Your task to perform on an android device: toggle data saver in the chrome app Image 0: 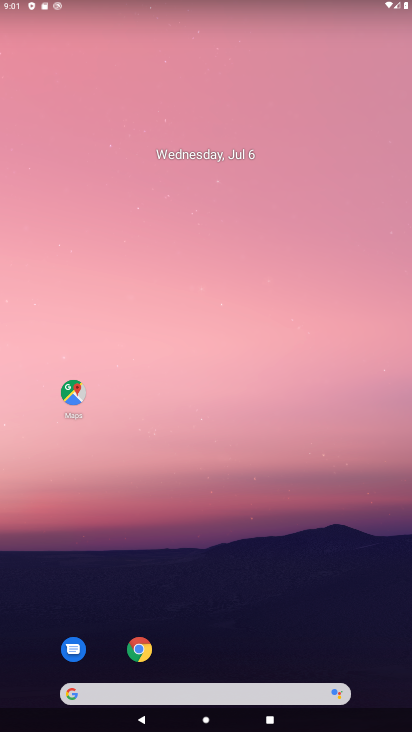
Step 0: drag from (222, 411) to (285, 185)
Your task to perform on an android device: toggle data saver in the chrome app Image 1: 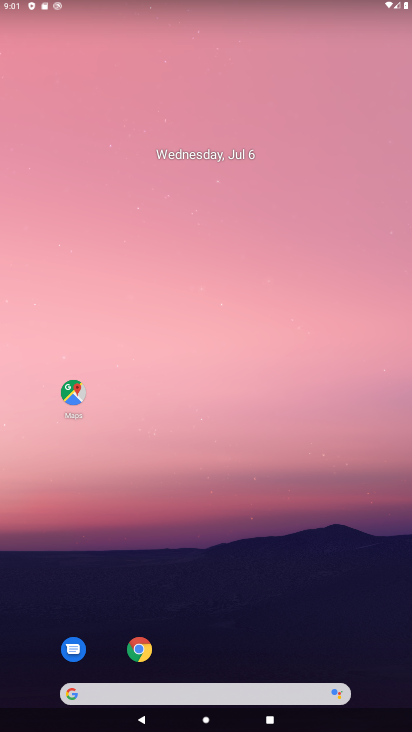
Step 1: drag from (183, 666) to (233, 144)
Your task to perform on an android device: toggle data saver in the chrome app Image 2: 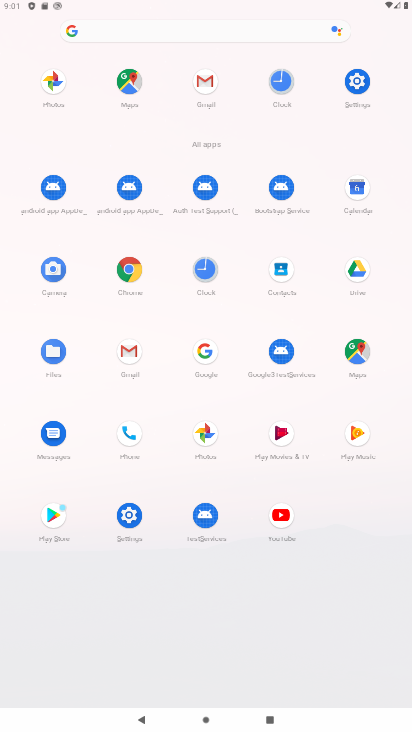
Step 2: click (131, 266)
Your task to perform on an android device: toggle data saver in the chrome app Image 3: 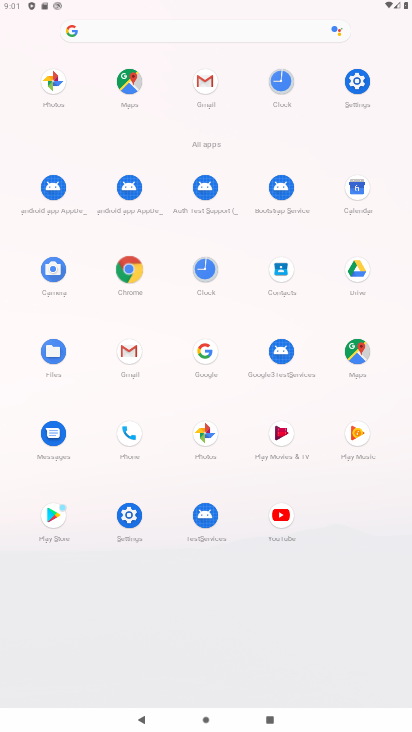
Step 3: click (131, 264)
Your task to perform on an android device: toggle data saver in the chrome app Image 4: 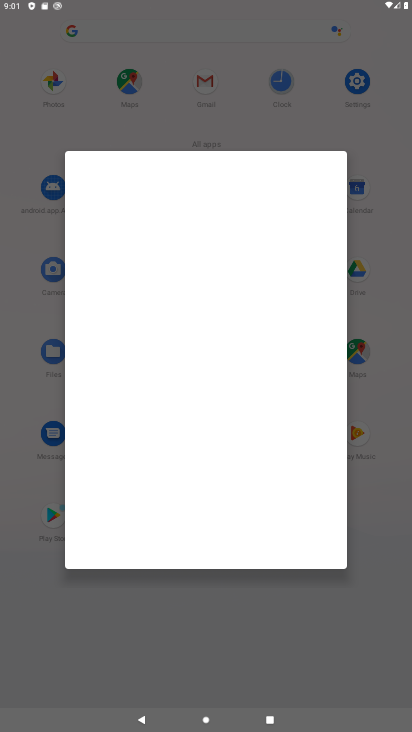
Step 4: drag from (168, 494) to (230, 333)
Your task to perform on an android device: toggle data saver in the chrome app Image 5: 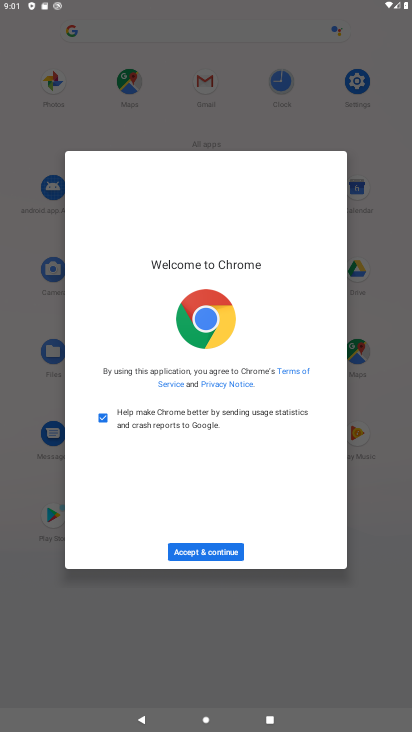
Step 5: click (196, 556)
Your task to perform on an android device: toggle data saver in the chrome app Image 6: 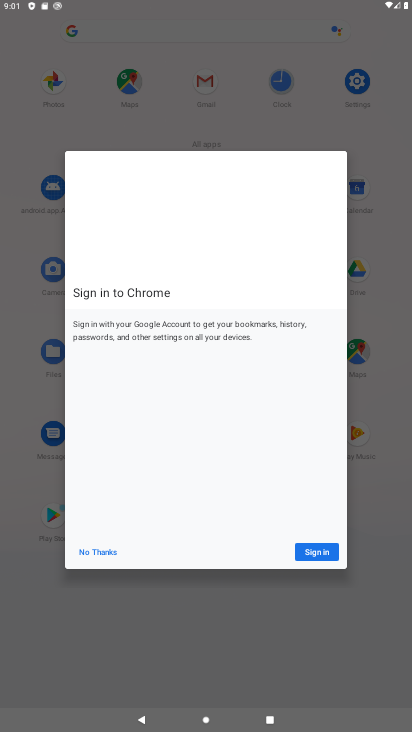
Step 6: click (98, 557)
Your task to perform on an android device: toggle data saver in the chrome app Image 7: 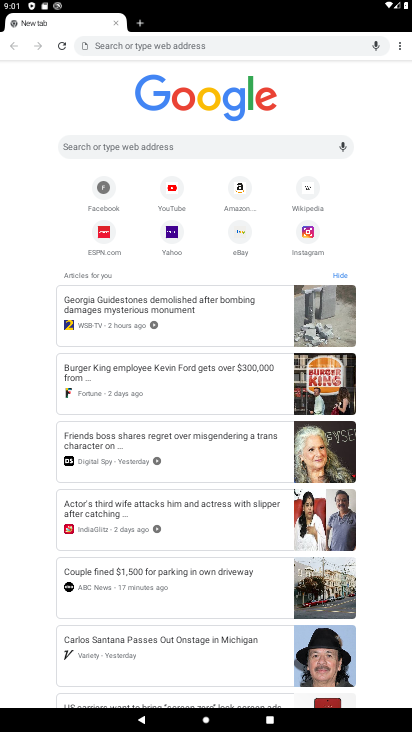
Step 7: click (401, 44)
Your task to perform on an android device: toggle data saver in the chrome app Image 8: 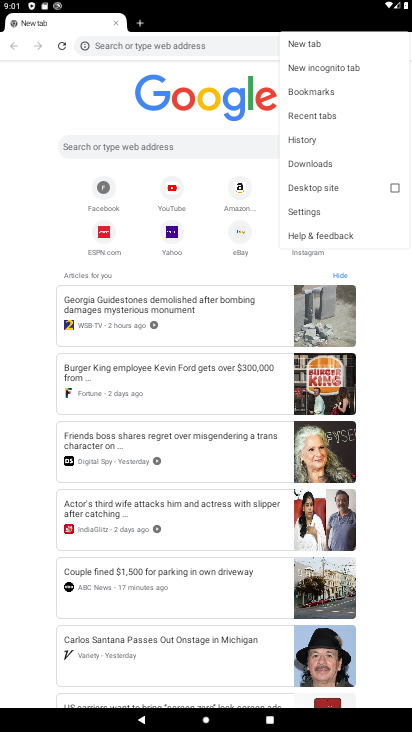
Step 8: click (320, 215)
Your task to perform on an android device: toggle data saver in the chrome app Image 9: 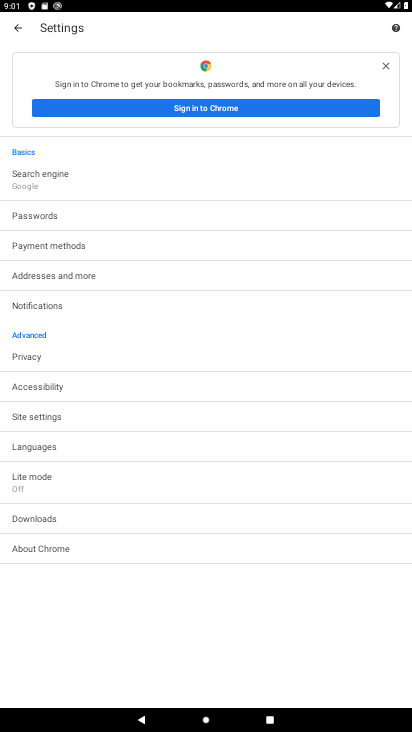
Step 9: click (39, 498)
Your task to perform on an android device: toggle data saver in the chrome app Image 10: 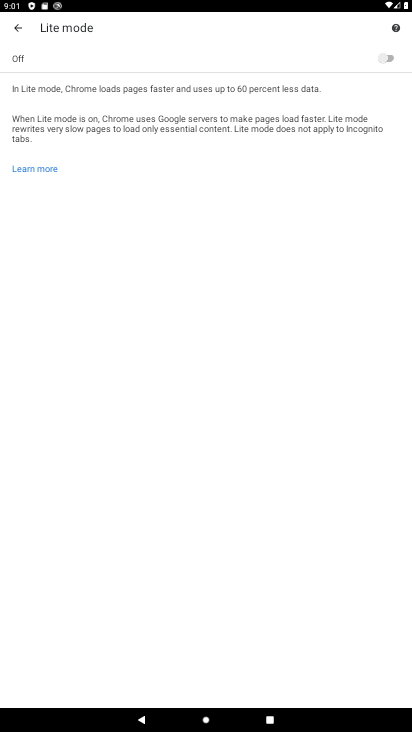
Step 10: click (374, 53)
Your task to perform on an android device: toggle data saver in the chrome app Image 11: 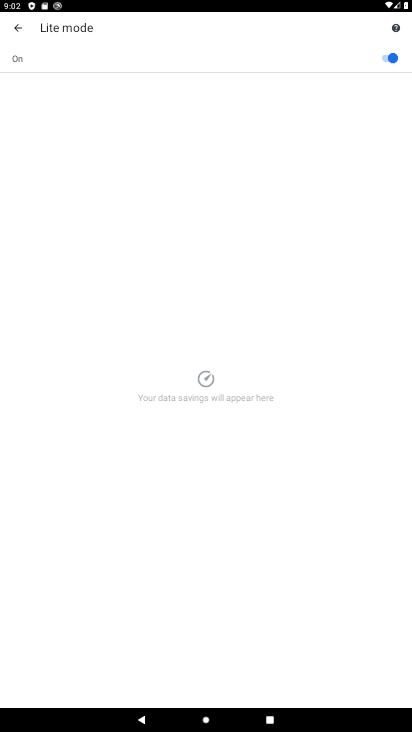
Step 11: task complete